Your task to perform on an android device: change the clock display to analog Image 0: 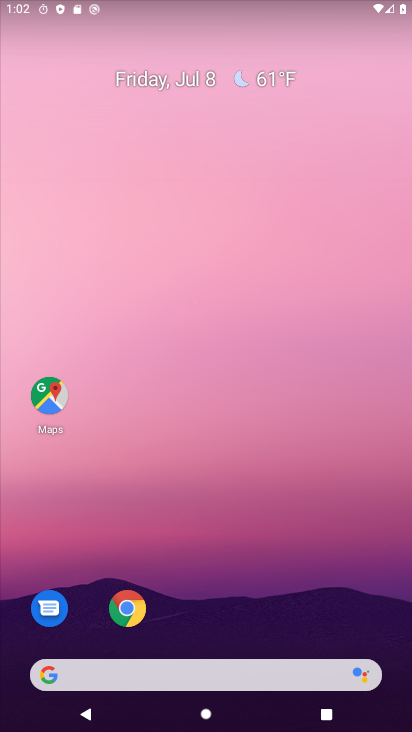
Step 0: drag from (213, 617) to (162, 188)
Your task to perform on an android device: change the clock display to analog Image 1: 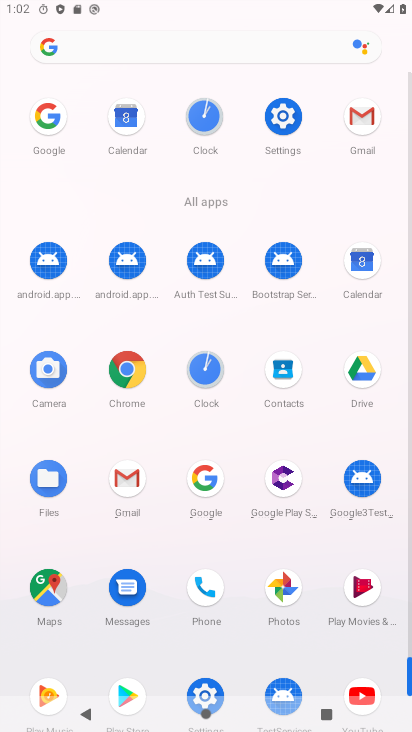
Step 1: click (203, 367)
Your task to perform on an android device: change the clock display to analog Image 2: 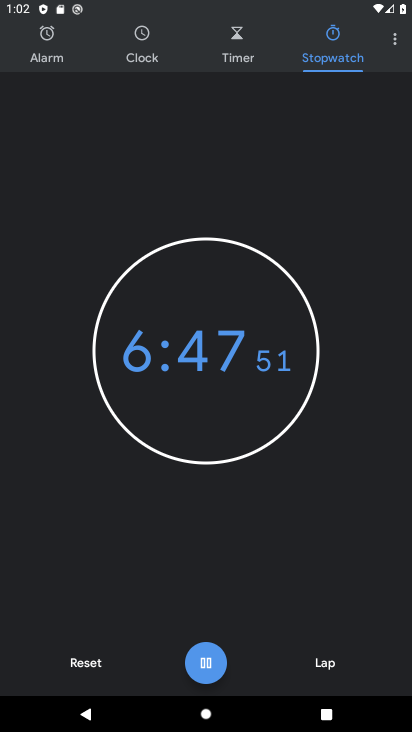
Step 2: click (391, 40)
Your task to perform on an android device: change the clock display to analog Image 3: 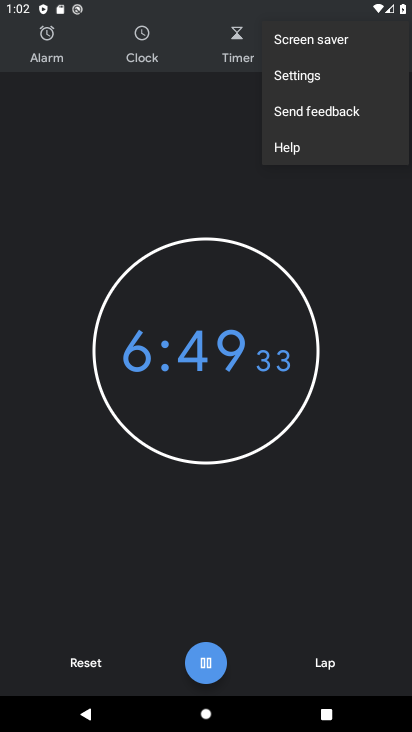
Step 3: click (305, 72)
Your task to perform on an android device: change the clock display to analog Image 4: 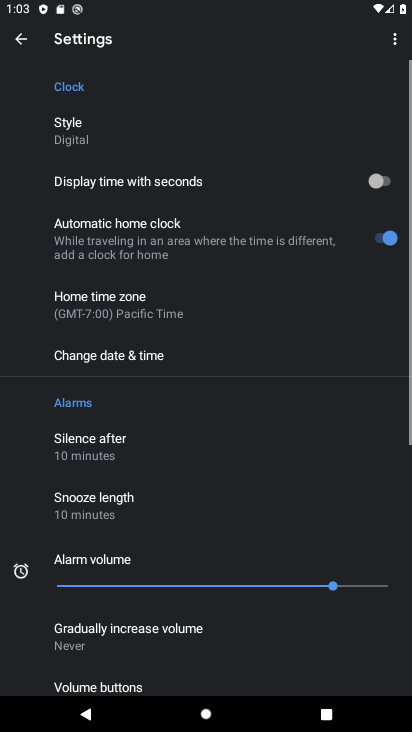
Step 4: click (96, 128)
Your task to perform on an android device: change the clock display to analog Image 5: 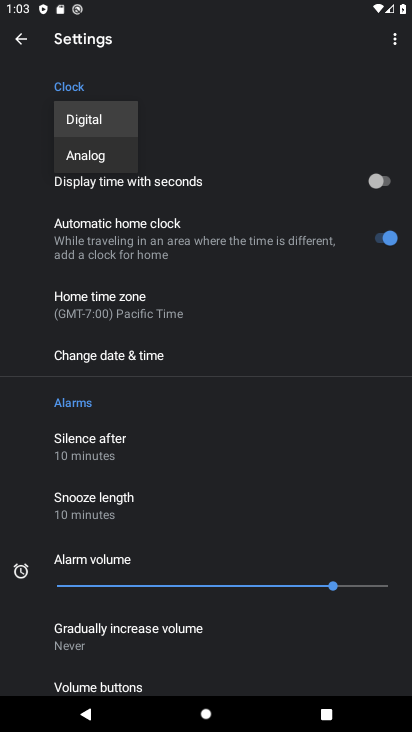
Step 5: click (74, 157)
Your task to perform on an android device: change the clock display to analog Image 6: 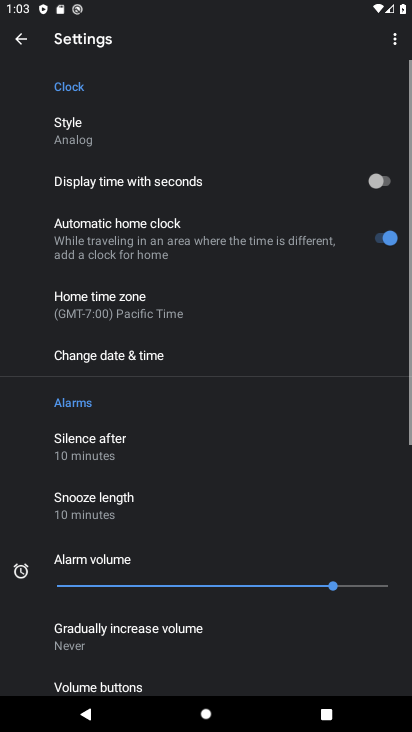
Step 6: task complete